Your task to perform on an android device: Search for "corsair k70" on ebay.com, select the first entry, and add it to the cart. Image 0: 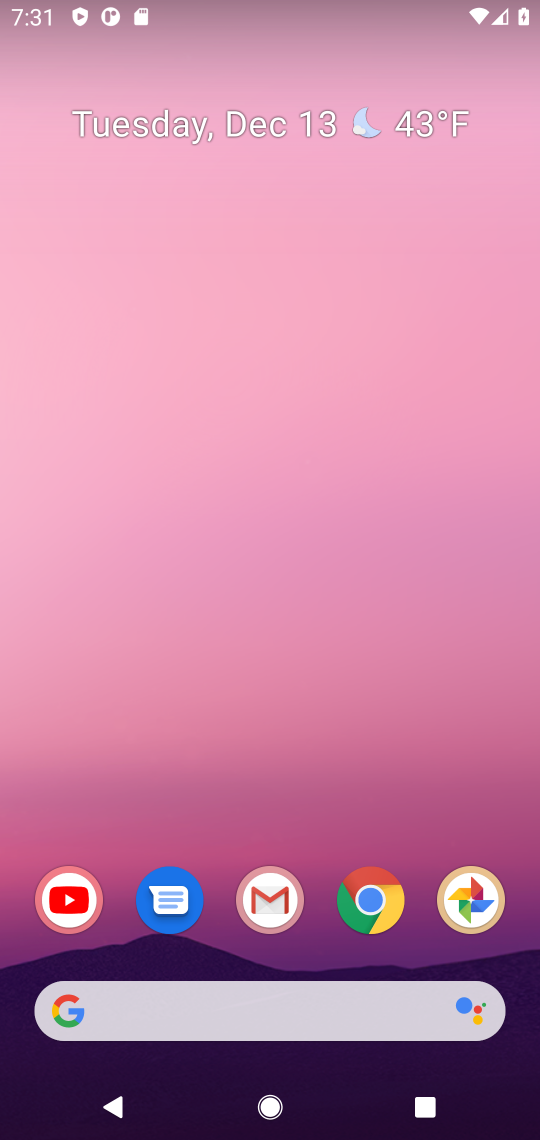
Step 0: click (373, 894)
Your task to perform on an android device: Search for "corsair k70" on ebay.com, select the first entry, and add it to the cart. Image 1: 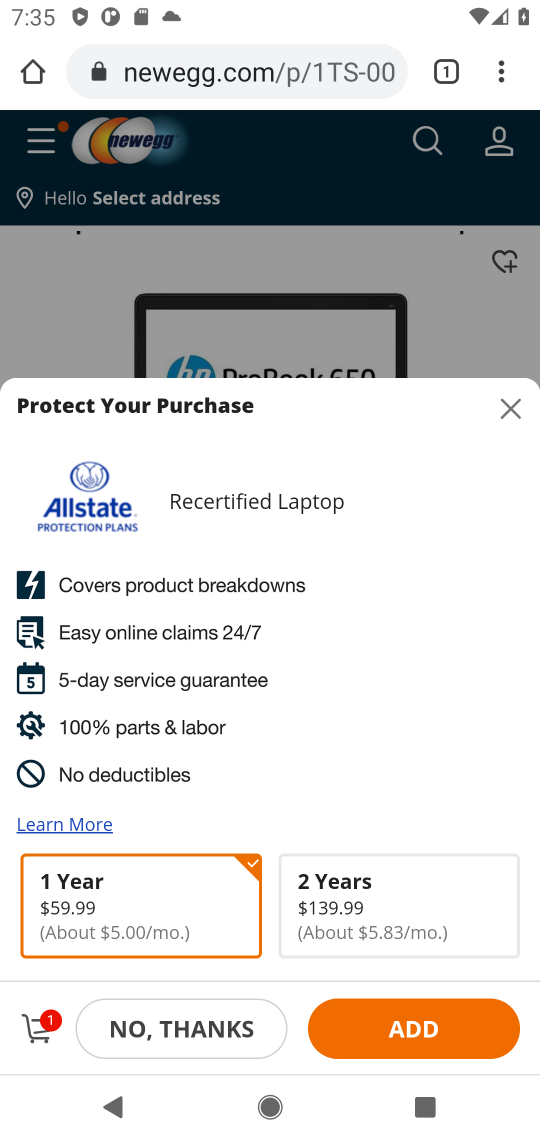
Step 1: click (265, 60)
Your task to perform on an android device: Search for "corsair k70" on ebay.com, select the first entry, and add it to the cart. Image 2: 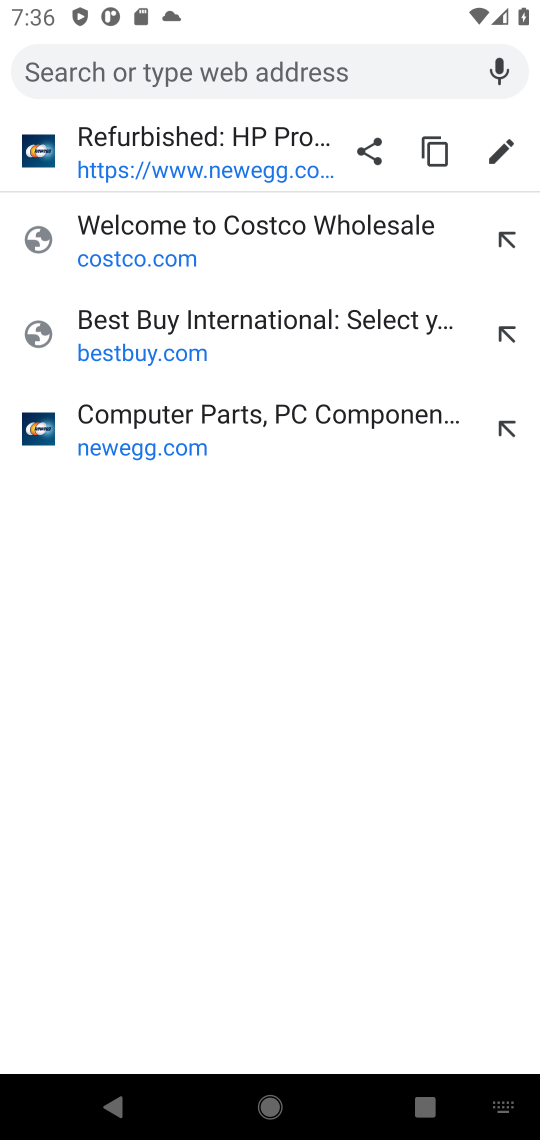
Step 2: type "ebay"
Your task to perform on an android device: Search for "corsair k70" on ebay.com, select the first entry, and add it to the cart. Image 3: 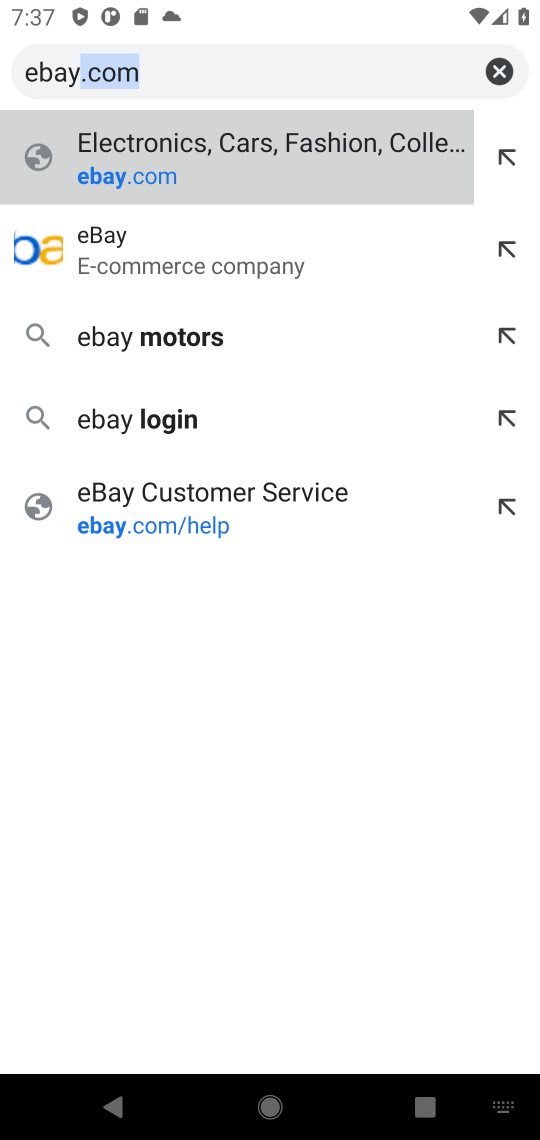
Step 3: click (159, 143)
Your task to perform on an android device: Search for "corsair k70" on ebay.com, select the first entry, and add it to the cart. Image 4: 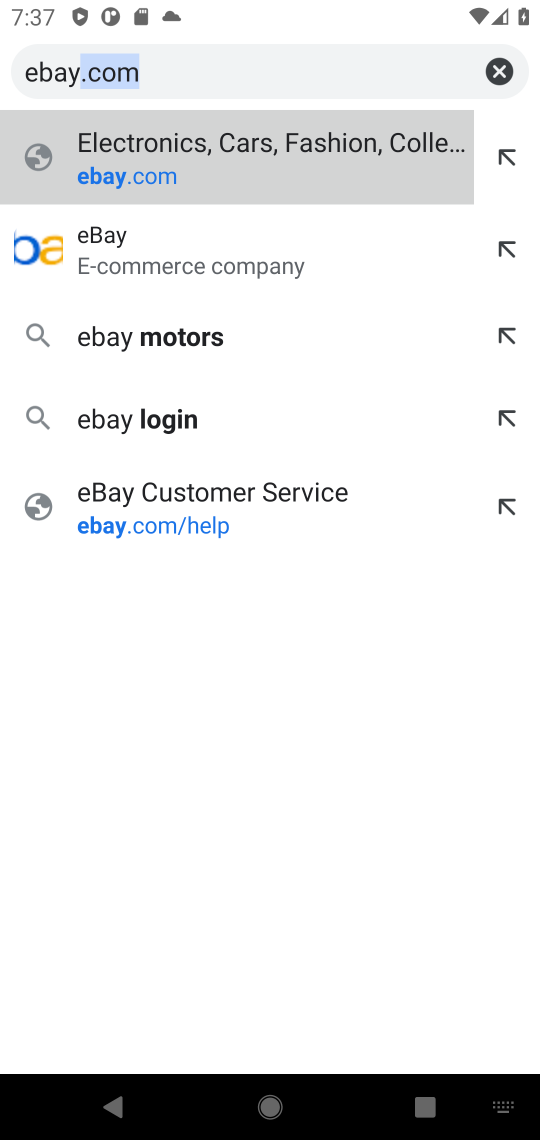
Step 4: task complete